Your task to perform on an android device: turn off translation in the chrome app Image 0: 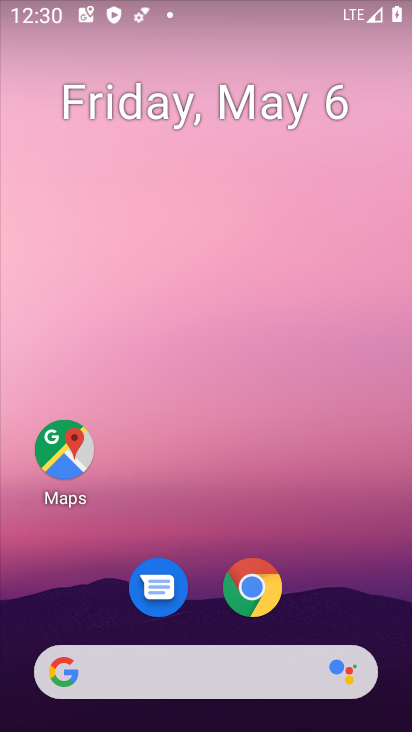
Step 0: click (267, 588)
Your task to perform on an android device: turn off translation in the chrome app Image 1: 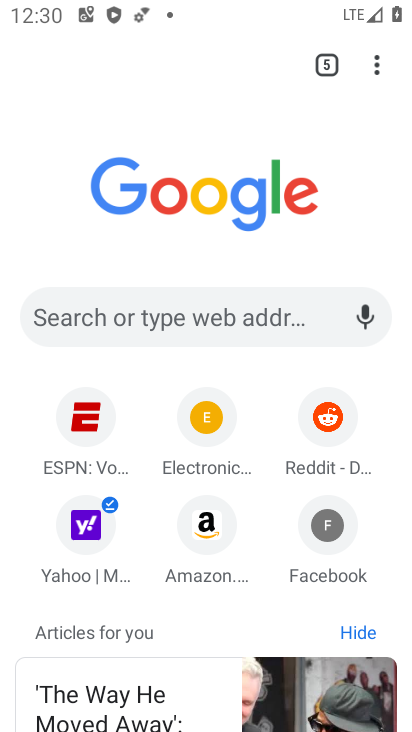
Step 1: click (379, 61)
Your task to perform on an android device: turn off translation in the chrome app Image 2: 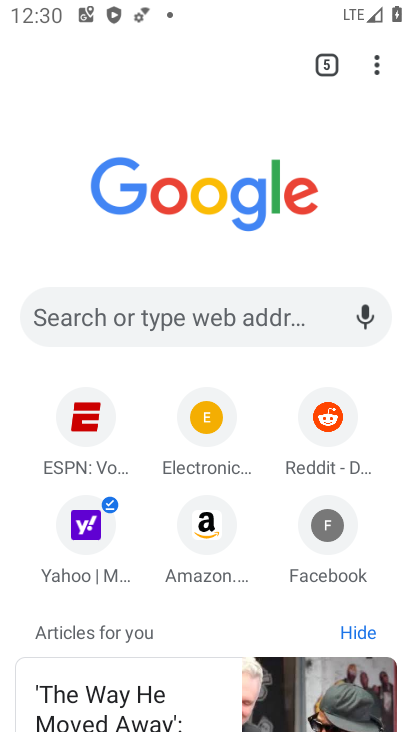
Step 2: drag from (374, 54) to (170, 548)
Your task to perform on an android device: turn off translation in the chrome app Image 3: 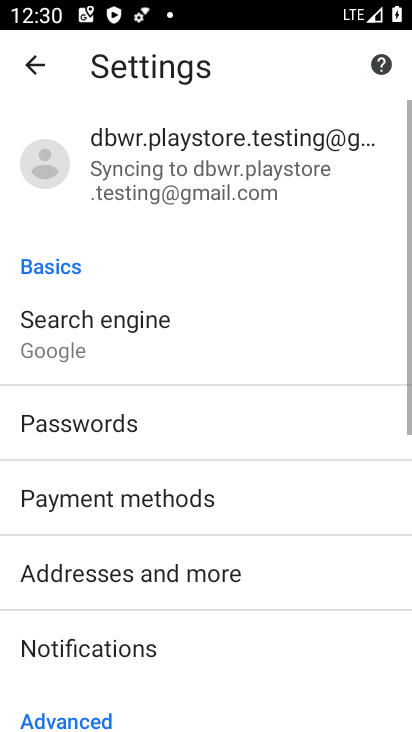
Step 3: drag from (181, 570) to (378, 22)
Your task to perform on an android device: turn off translation in the chrome app Image 4: 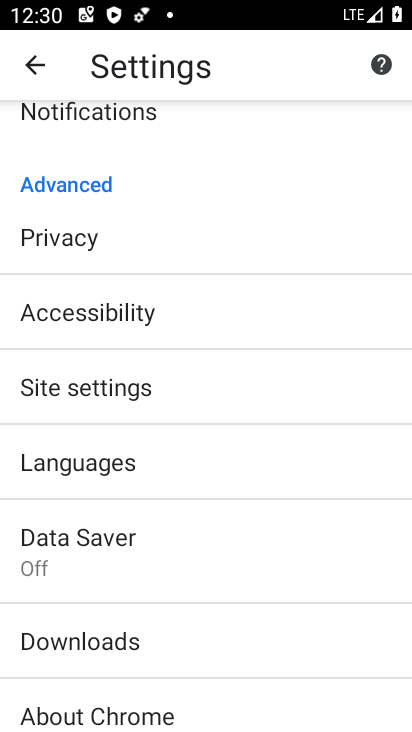
Step 4: click (137, 471)
Your task to perform on an android device: turn off translation in the chrome app Image 5: 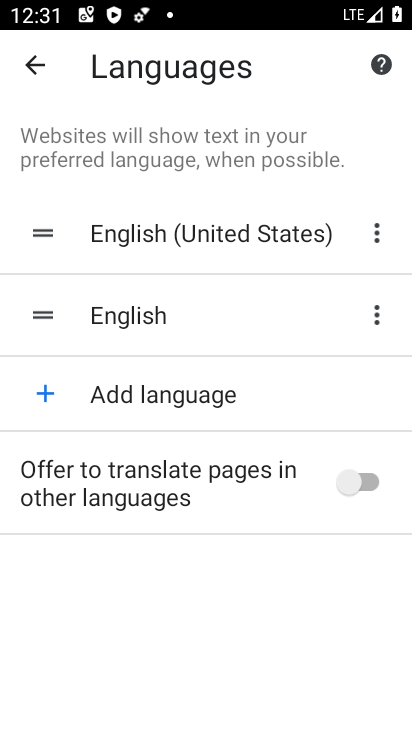
Step 5: task complete